Your task to perform on an android device: toggle priority inbox in the gmail app Image 0: 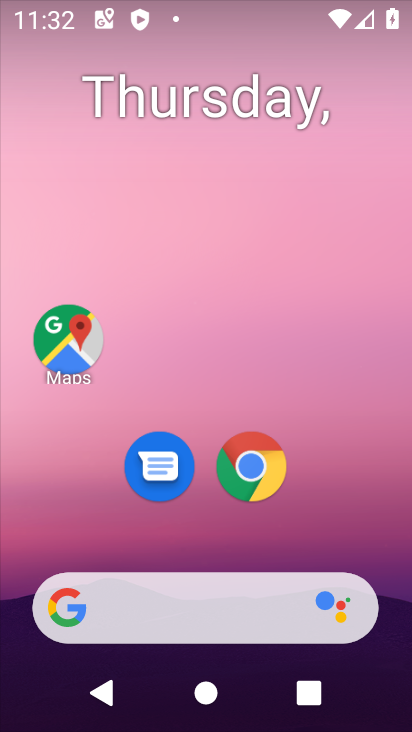
Step 0: drag from (397, 616) to (307, 2)
Your task to perform on an android device: toggle priority inbox in the gmail app Image 1: 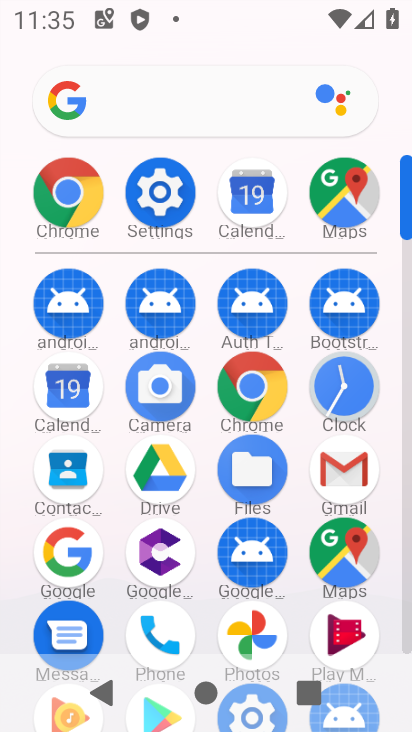
Step 1: click (349, 478)
Your task to perform on an android device: toggle priority inbox in the gmail app Image 2: 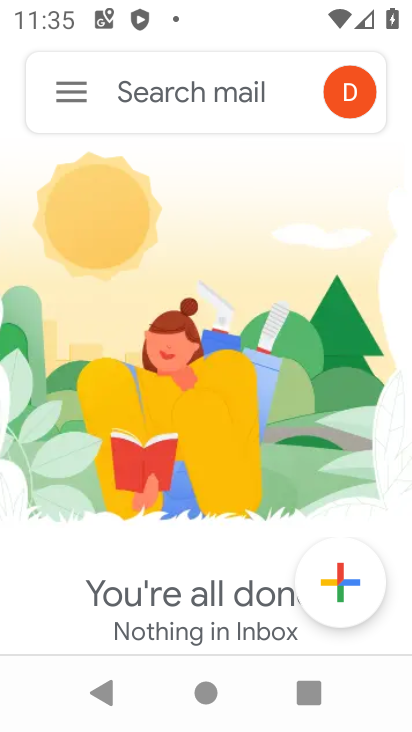
Step 2: click (50, 81)
Your task to perform on an android device: toggle priority inbox in the gmail app Image 3: 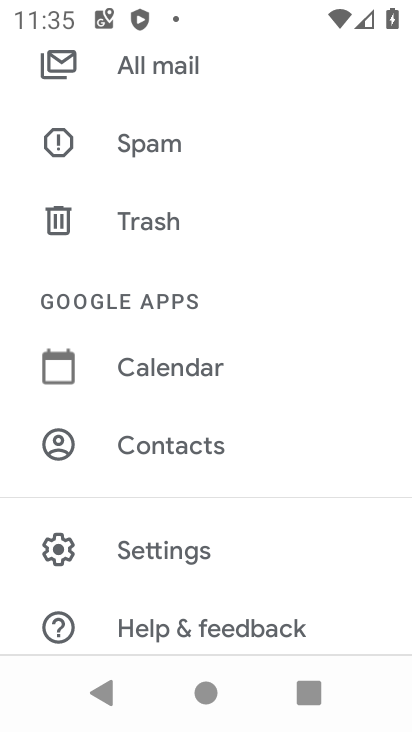
Step 3: click (196, 570)
Your task to perform on an android device: toggle priority inbox in the gmail app Image 4: 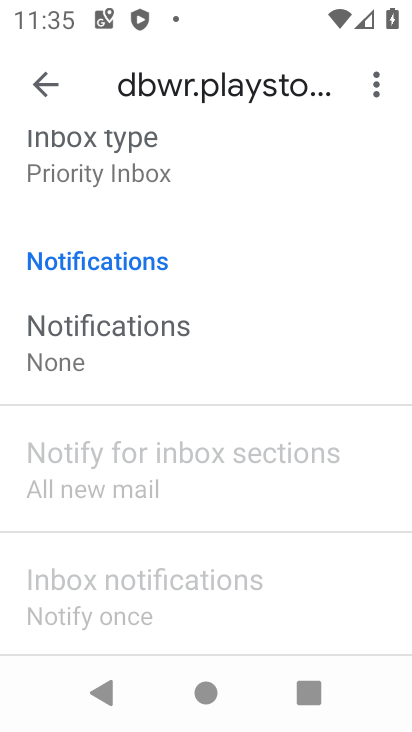
Step 4: click (147, 185)
Your task to perform on an android device: toggle priority inbox in the gmail app Image 5: 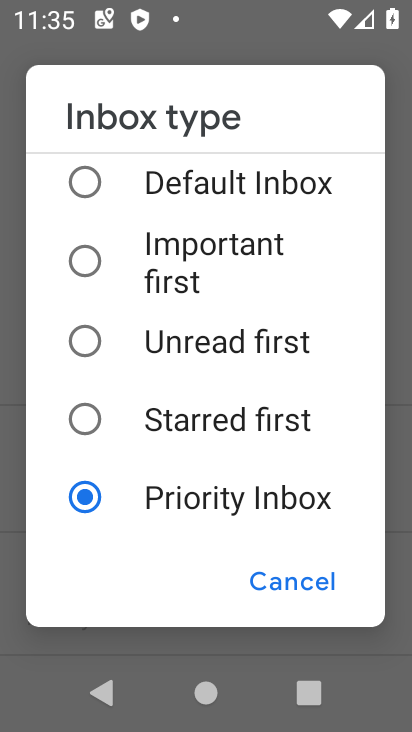
Step 5: click (167, 180)
Your task to perform on an android device: toggle priority inbox in the gmail app Image 6: 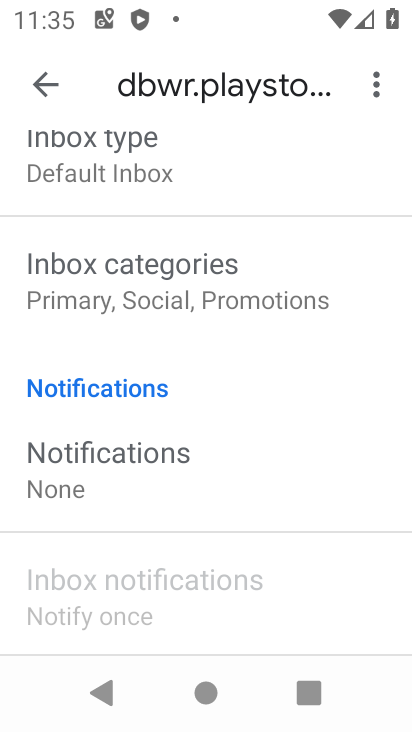
Step 6: task complete